Your task to perform on an android device: toggle translation in the chrome app Image 0: 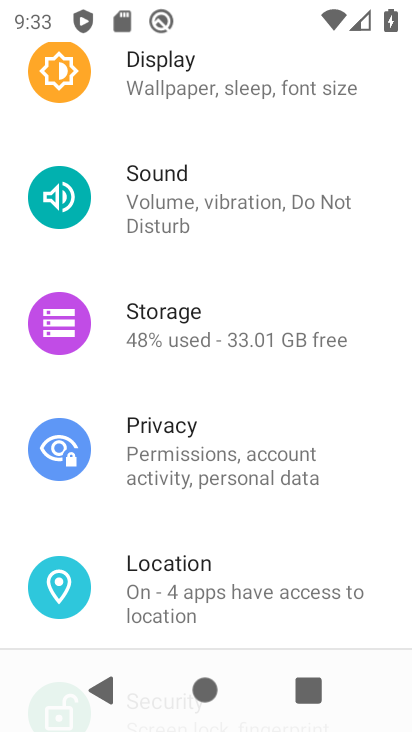
Step 0: press home button
Your task to perform on an android device: toggle translation in the chrome app Image 1: 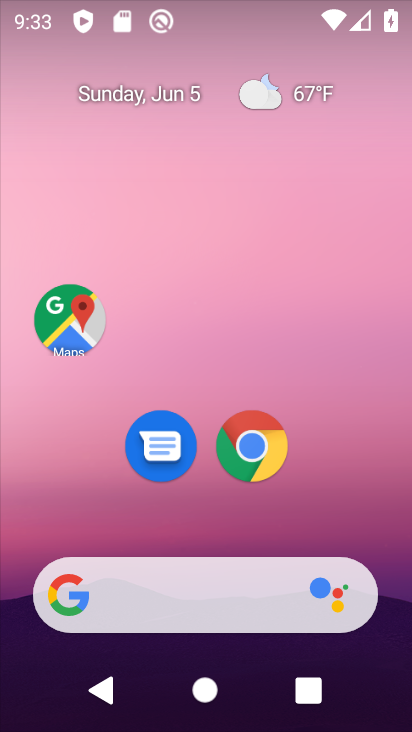
Step 1: click (246, 443)
Your task to perform on an android device: toggle translation in the chrome app Image 2: 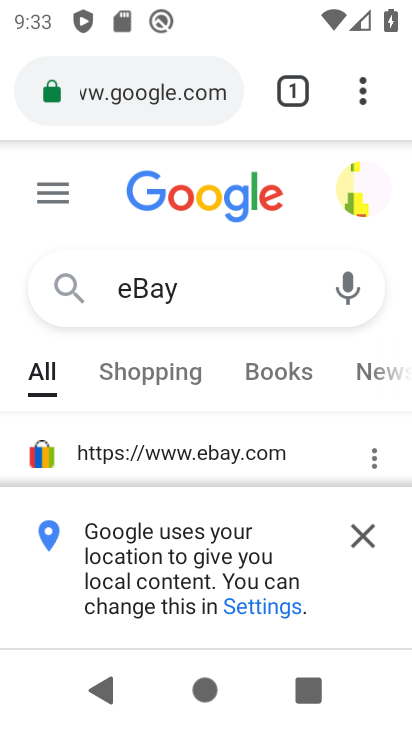
Step 2: click (360, 99)
Your task to perform on an android device: toggle translation in the chrome app Image 3: 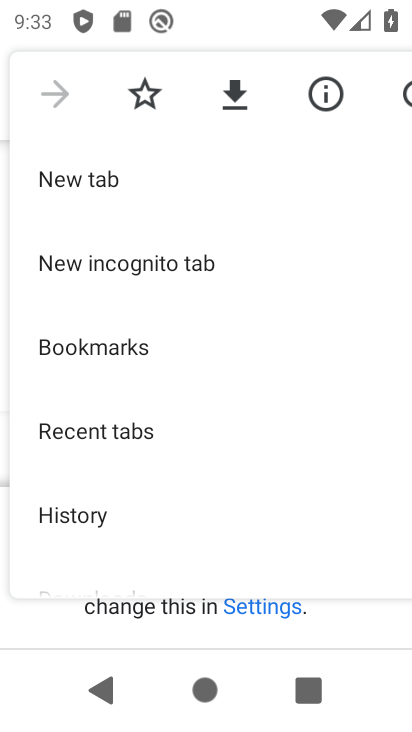
Step 3: drag from (162, 526) to (195, 272)
Your task to perform on an android device: toggle translation in the chrome app Image 4: 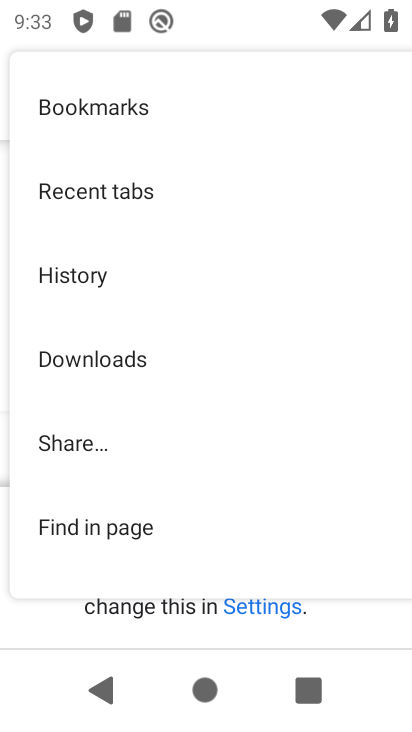
Step 4: drag from (150, 483) to (201, 256)
Your task to perform on an android device: toggle translation in the chrome app Image 5: 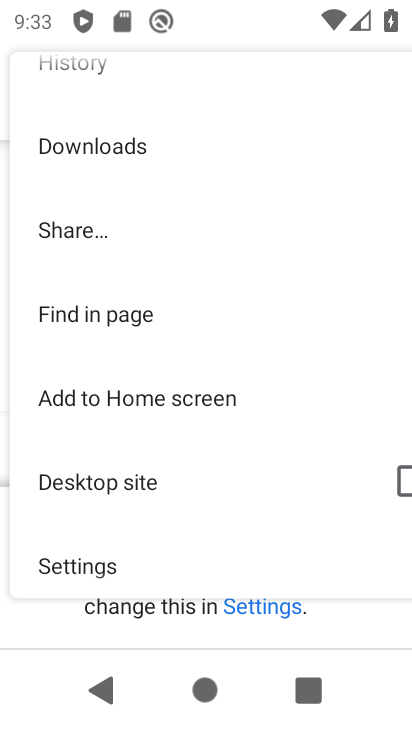
Step 5: click (124, 546)
Your task to perform on an android device: toggle translation in the chrome app Image 6: 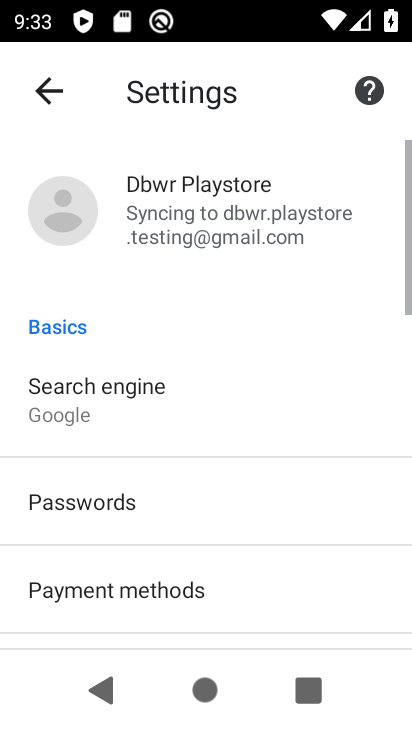
Step 6: drag from (197, 533) to (225, 237)
Your task to perform on an android device: toggle translation in the chrome app Image 7: 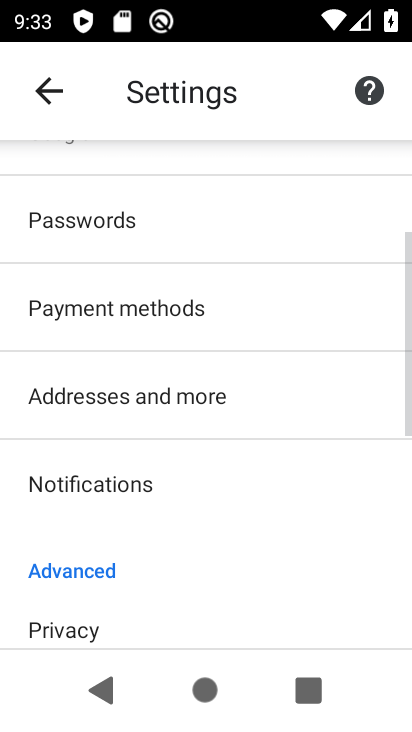
Step 7: drag from (206, 509) to (225, 264)
Your task to perform on an android device: toggle translation in the chrome app Image 8: 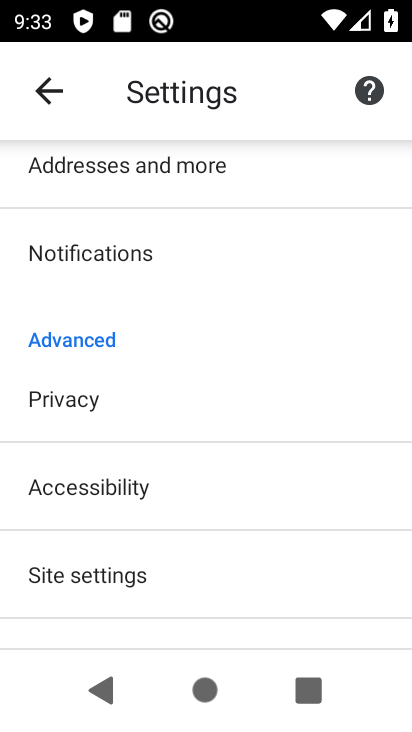
Step 8: drag from (166, 541) to (205, 314)
Your task to perform on an android device: toggle translation in the chrome app Image 9: 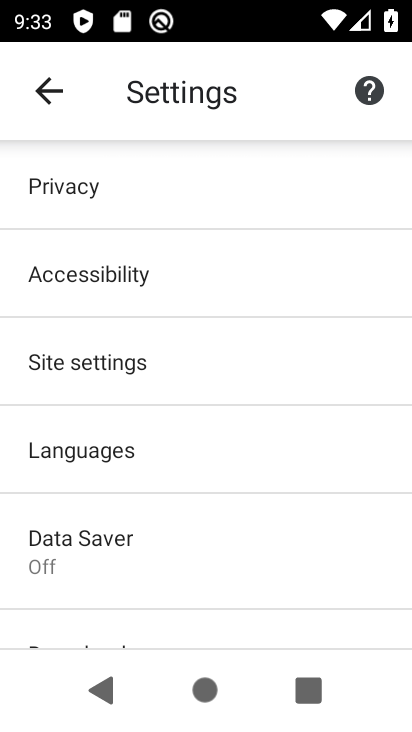
Step 9: click (148, 458)
Your task to perform on an android device: toggle translation in the chrome app Image 10: 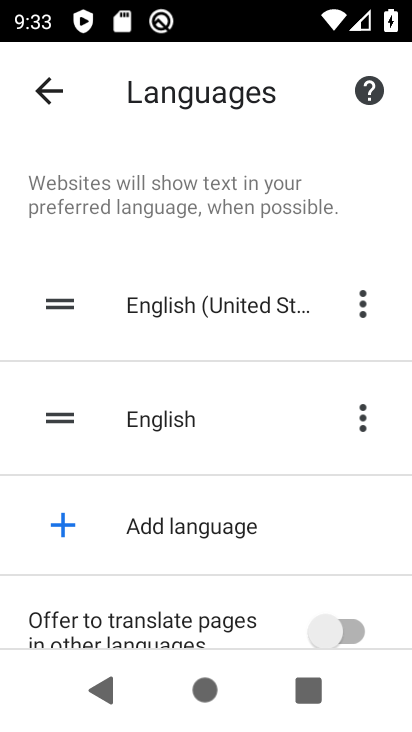
Step 10: drag from (230, 616) to (238, 418)
Your task to perform on an android device: toggle translation in the chrome app Image 11: 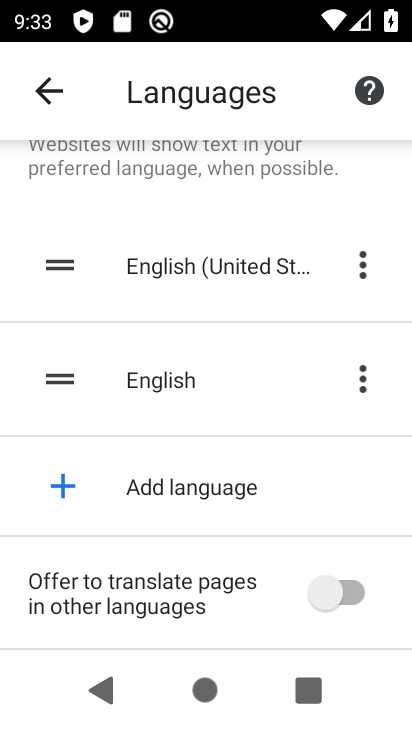
Step 11: click (355, 597)
Your task to perform on an android device: toggle translation in the chrome app Image 12: 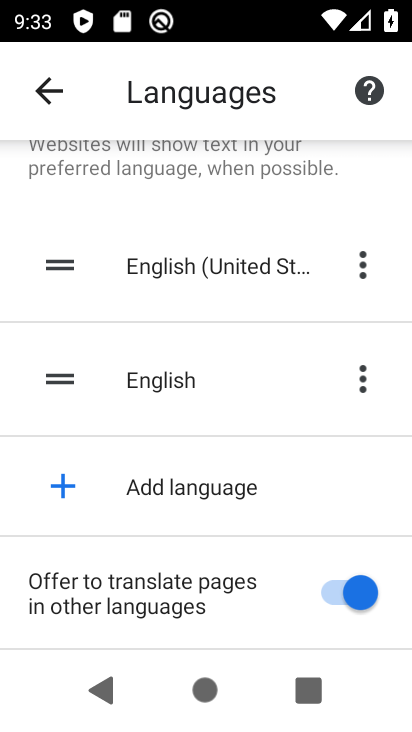
Step 12: task complete